Your task to perform on an android device: stop showing notifications on the lock screen Image 0: 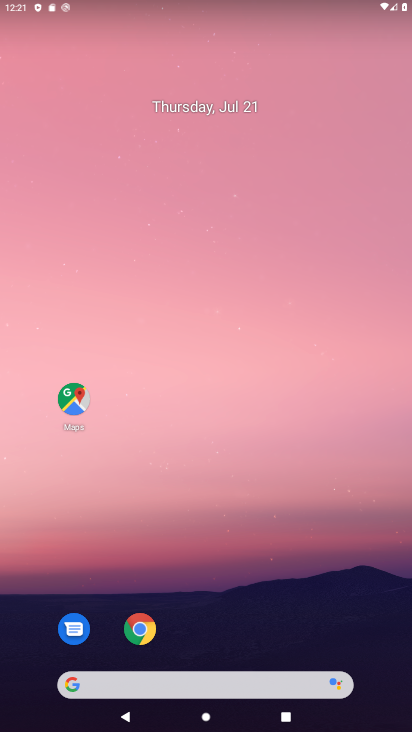
Step 0: drag from (293, 597) to (316, 151)
Your task to perform on an android device: stop showing notifications on the lock screen Image 1: 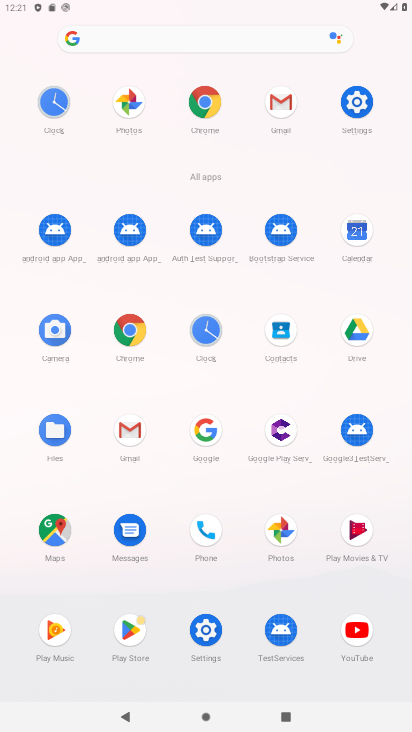
Step 1: click (360, 110)
Your task to perform on an android device: stop showing notifications on the lock screen Image 2: 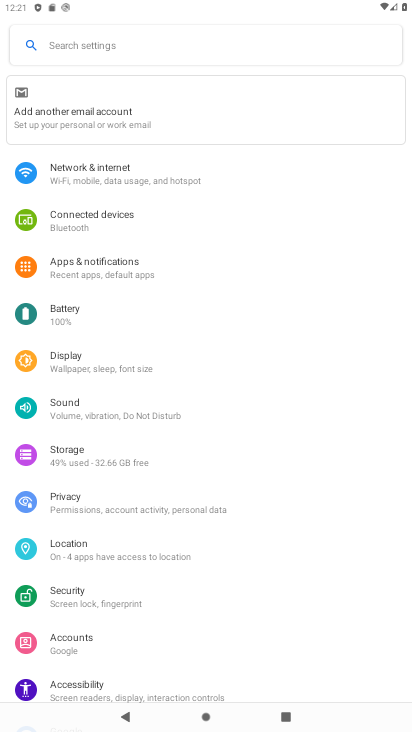
Step 2: click (137, 271)
Your task to perform on an android device: stop showing notifications on the lock screen Image 3: 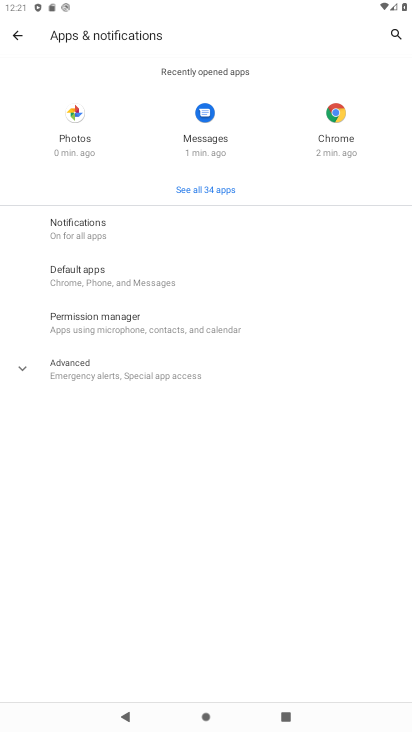
Step 3: click (97, 225)
Your task to perform on an android device: stop showing notifications on the lock screen Image 4: 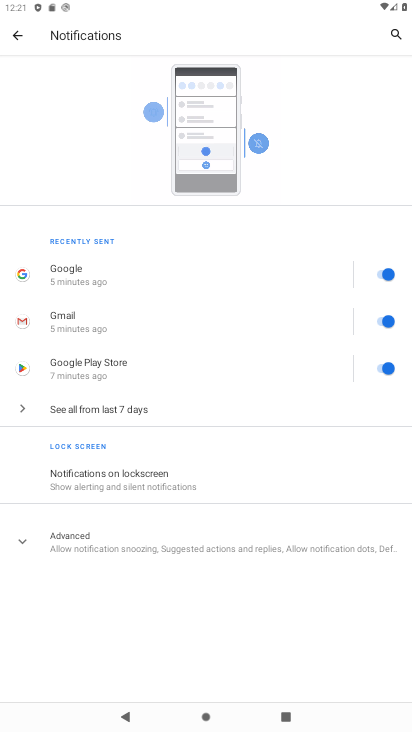
Step 4: click (175, 477)
Your task to perform on an android device: stop showing notifications on the lock screen Image 5: 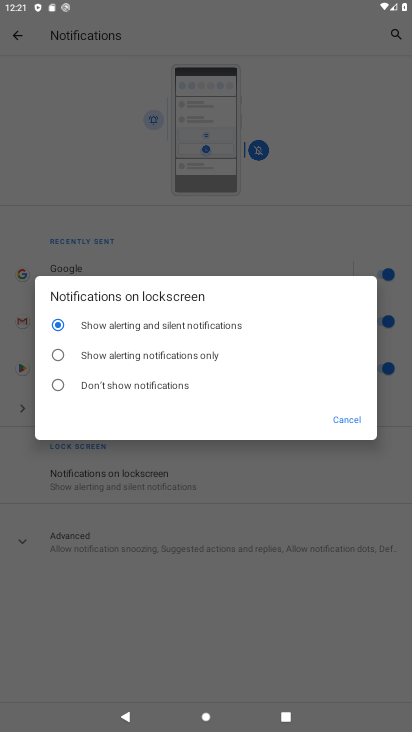
Step 5: click (143, 383)
Your task to perform on an android device: stop showing notifications on the lock screen Image 6: 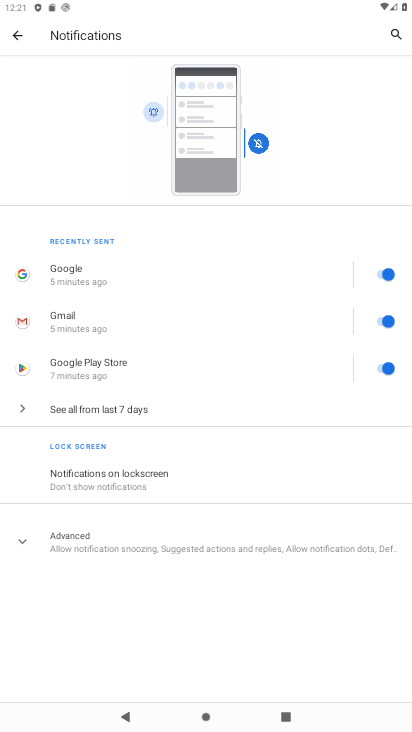
Step 6: task complete